Your task to perform on an android device: see creations saved in the google photos Image 0: 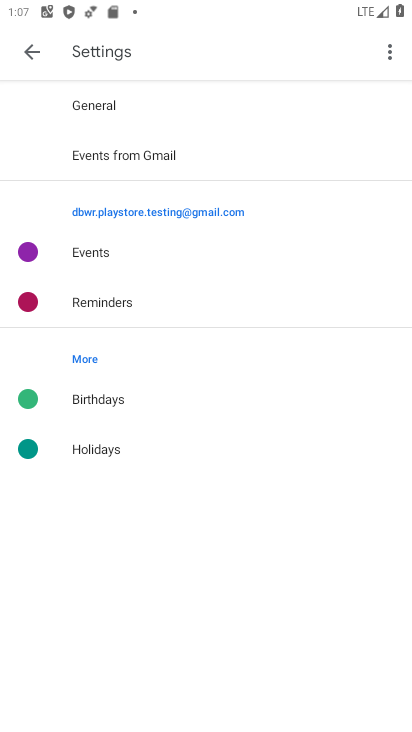
Step 0: press home button
Your task to perform on an android device: see creations saved in the google photos Image 1: 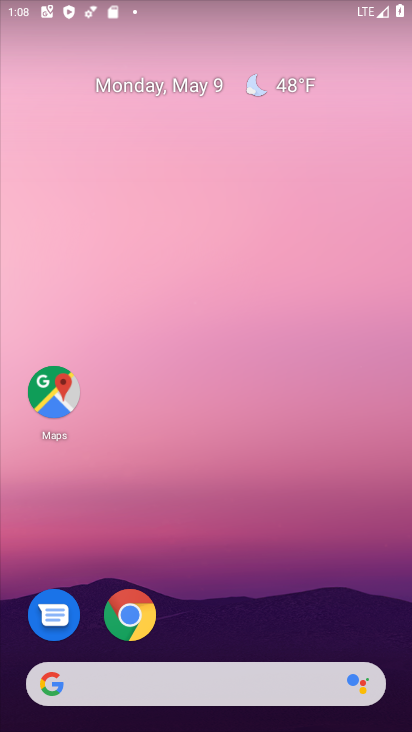
Step 1: drag from (381, 646) to (337, 100)
Your task to perform on an android device: see creations saved in the google photos Image 2: 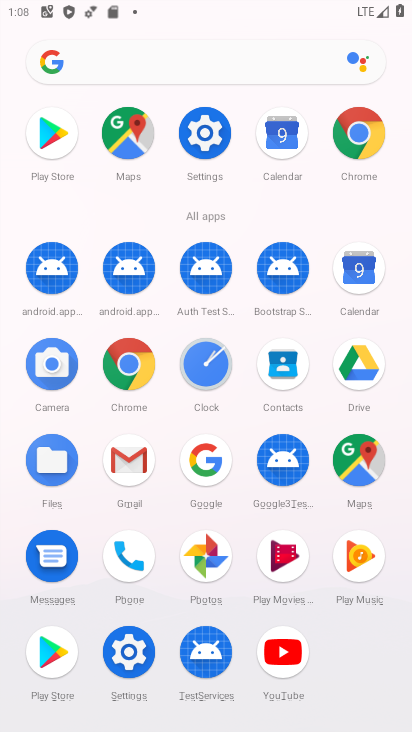
Step 2: click (205, 556)
Your task to perform on an android device: see creations saved in the google photos Image 3: 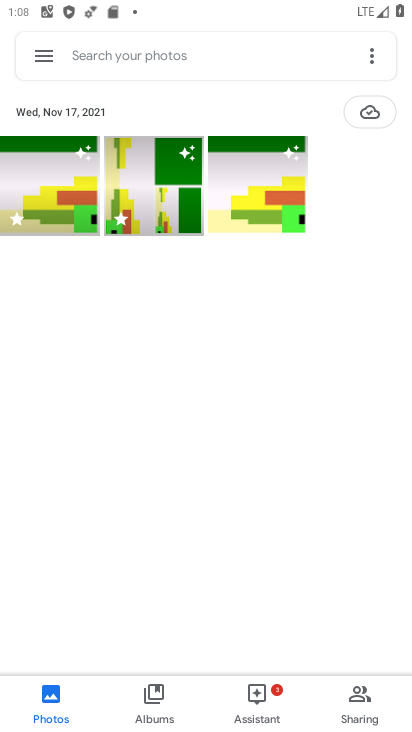
Step 3: task complete